Your task to perform on an android device: change the clock display to digital Image 0: 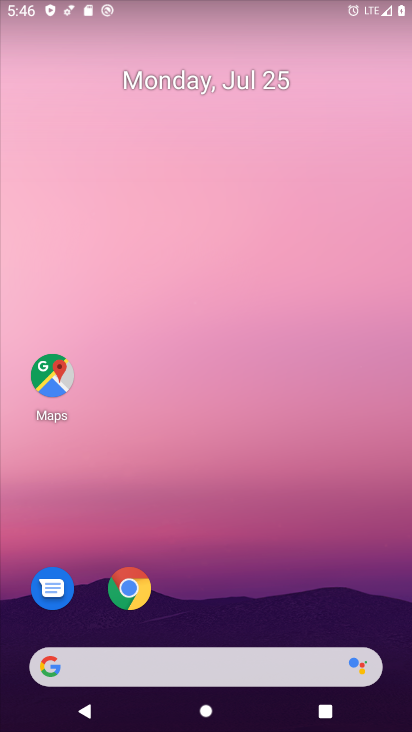
Step 0: drag from (199, 668) to (195, 82)
Your task to perform on an android device: change the clock display to digital Image 1: 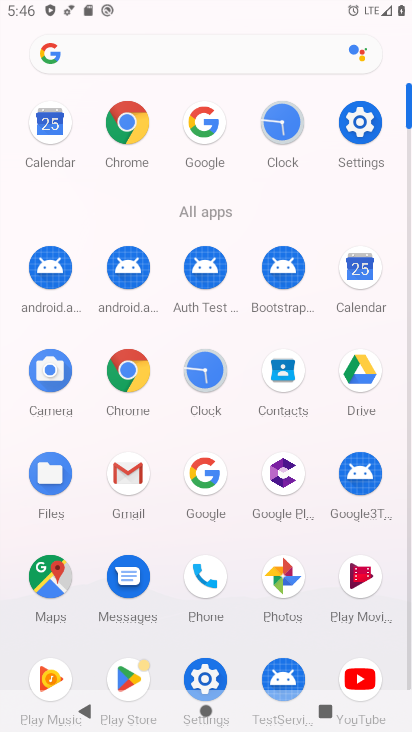
Step 1: click (205, 368)
Your task to perform on an android device: change the clock display to digital Image 2: 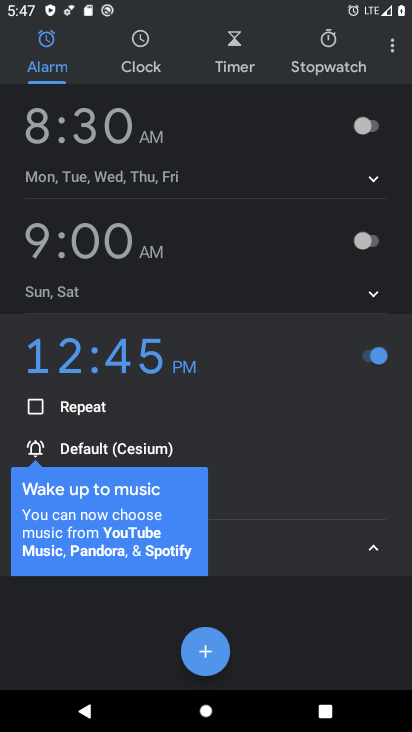
Step 2: click (392, 47)
Your task to perform on an android device: change the clock display to digital Image 3: 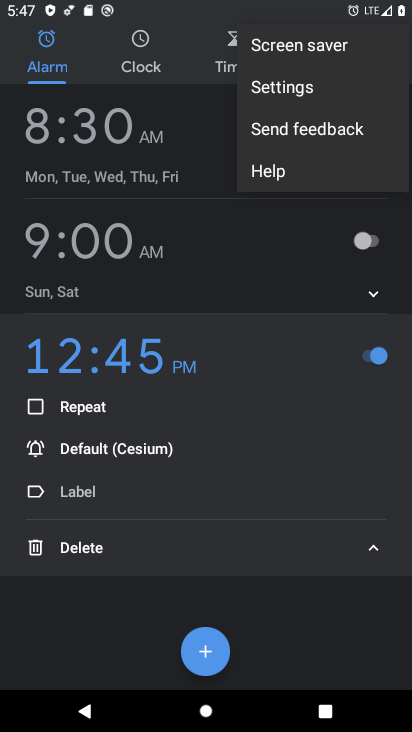
Step 3: click (272, 87)
Your task to perform on an android device: change the clock display to digital Image 4: 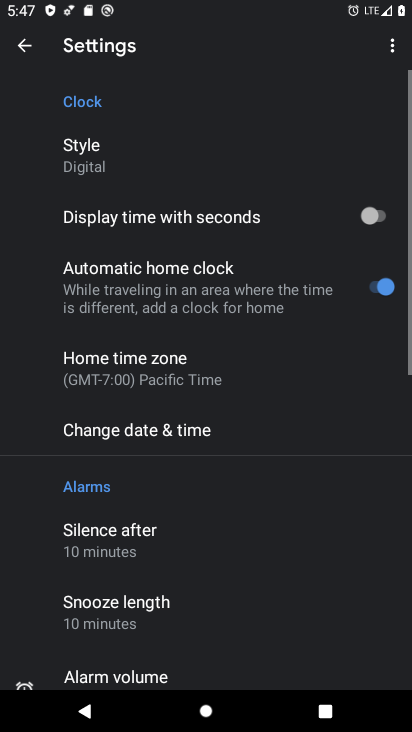
Step 4: click (99, 159)
Your task to perform on an android device: change the clock display to digital Image 5: 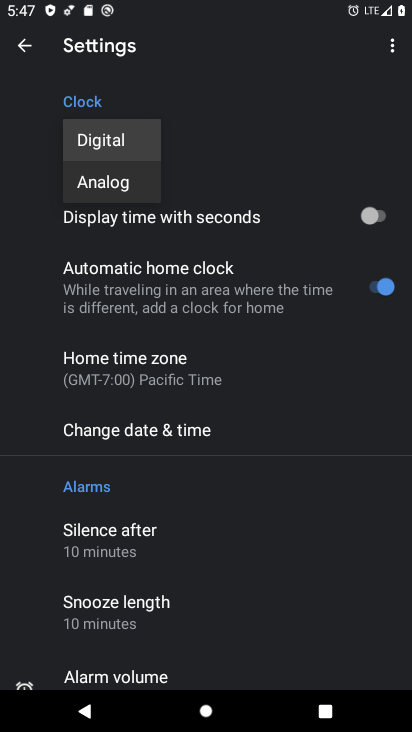
Step 5: click (99, 159)
Your task to perform on an android device: change the clock display to digital Image 6: 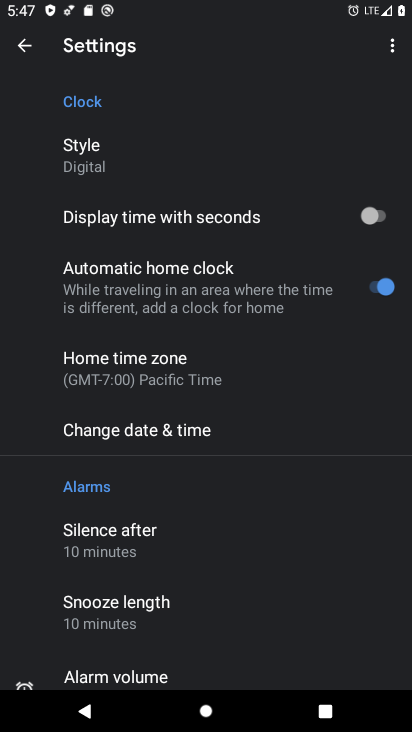
Step 6: task complete